Your task to perform on an android device: open app "Chime – Mobile Banking" (install if not already installed) and enter user name: "bullfrog@inbox.com" and password: "breaker" Image 0: 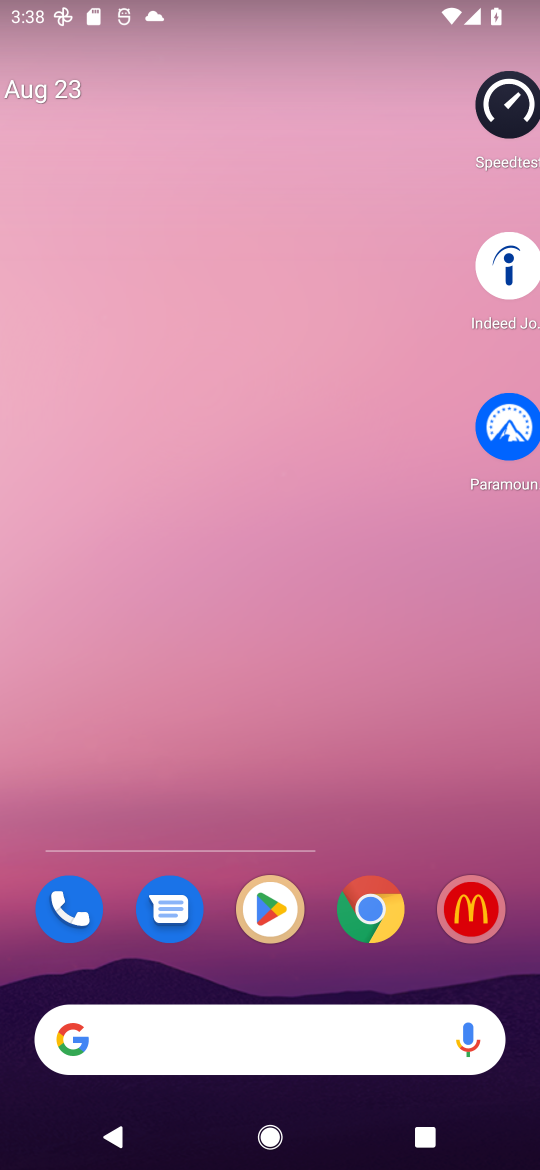
Step 0: press home button
Your task to perform on an android device: open app "Chime – Mobile Banking" (install if not already installed) and enter user name: "bullfrog@inbox.com" and password: "breaker" Image 1: 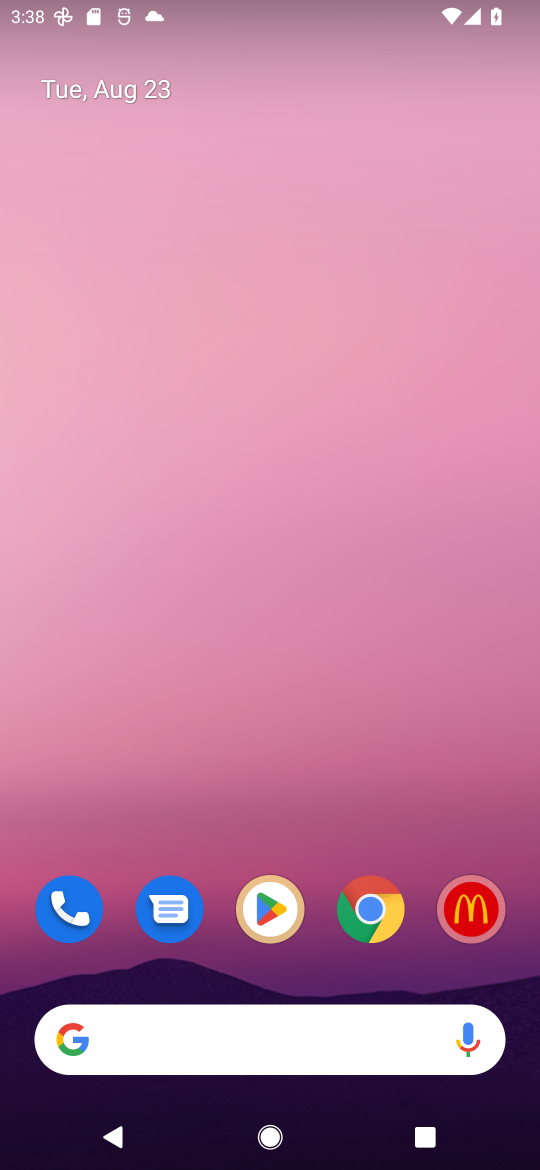
Step 1: click (263, 902)
Your task to perform on an android device: open app "Chime – Mobile Banking" (install if not already installed) and enter user name: "bullfrog@inbox.com" and password: "breaker" Image 2: 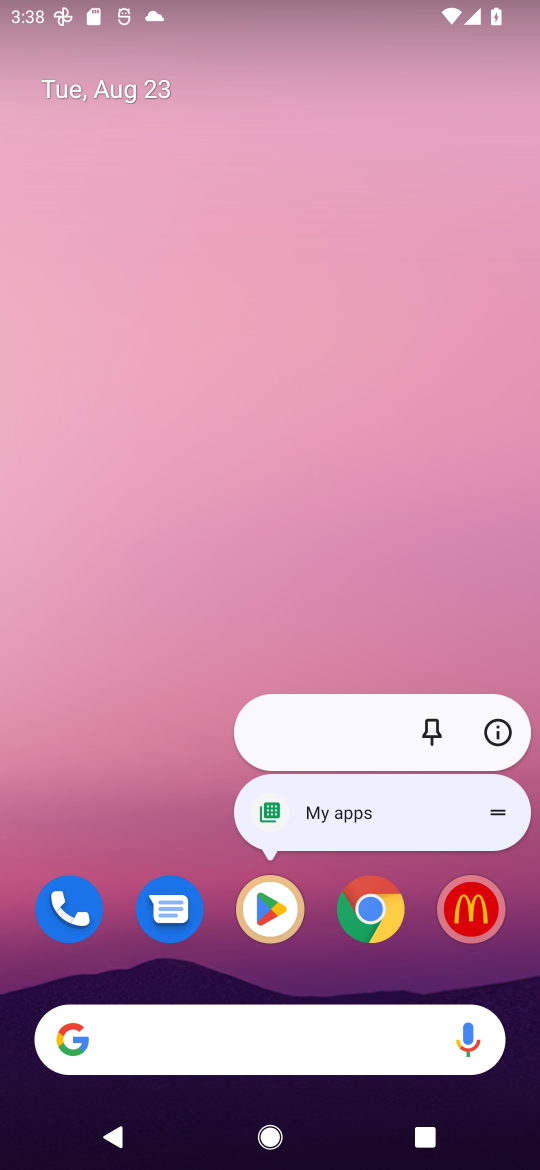
Step 2: click (263, 902)
Your task to perform on an android device: open app "Chime – Mobile Banking" (install if not already installed) and enter user name: "bullfrog@inbox.com" and password: "breaker" Image 3: 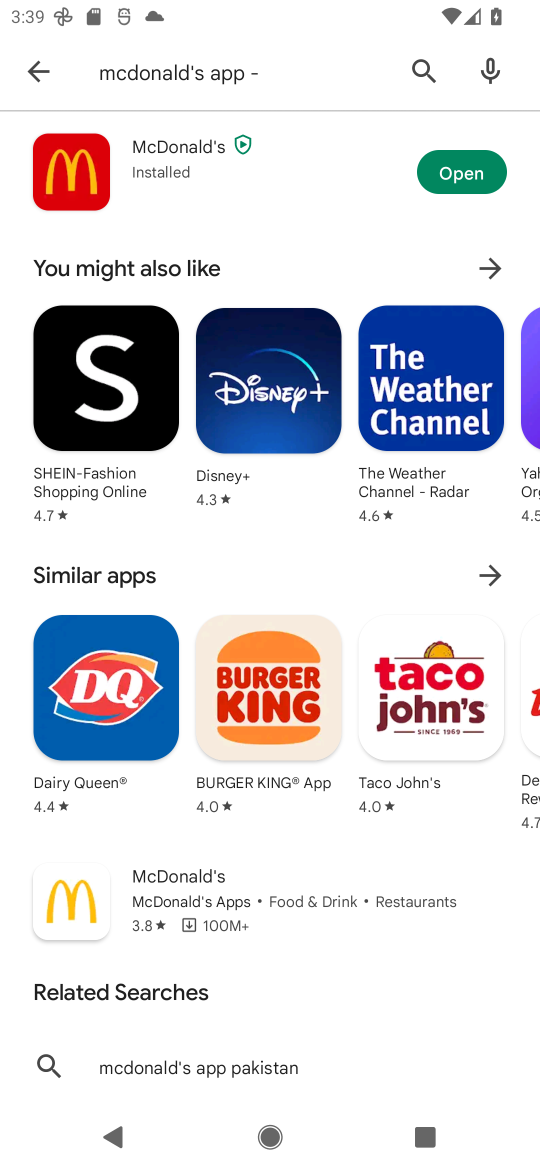
Step 3: click (422, 72)
Your task to perform on an android device: open app "Chime – Mobile Banking" (install if not already installed) and enter user name: "bullfrog@inbox.com" and password: "breaker" Image 4: 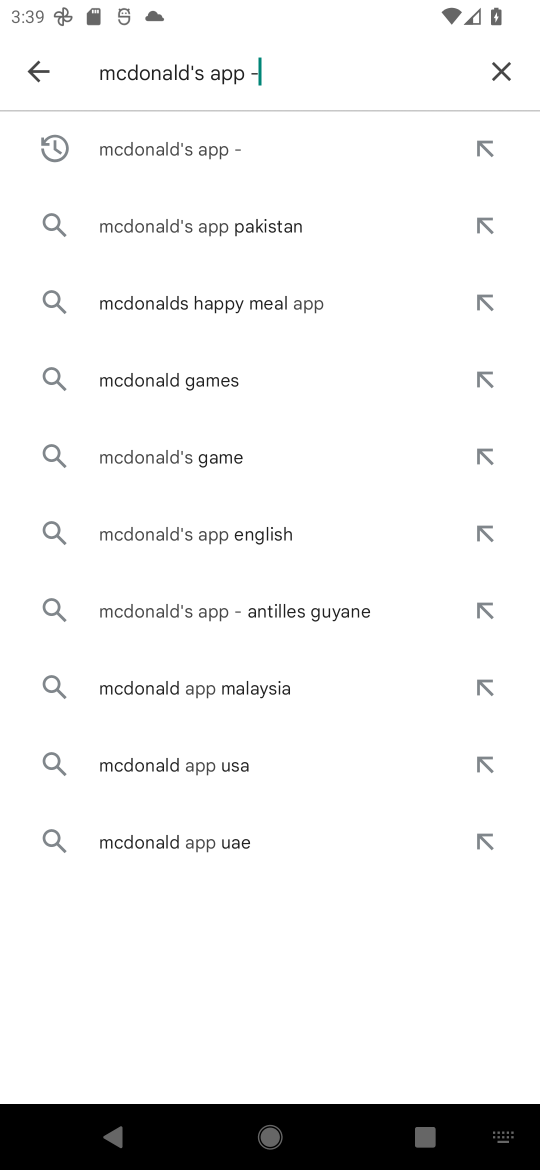
Step 4: click (488, 65)
Your task to perform on an android device: open app "Chime – Mobile Banking" (install if not already installed) and enter user name: "bullfrog@inbox.com" and password: "breaker" Image 5: 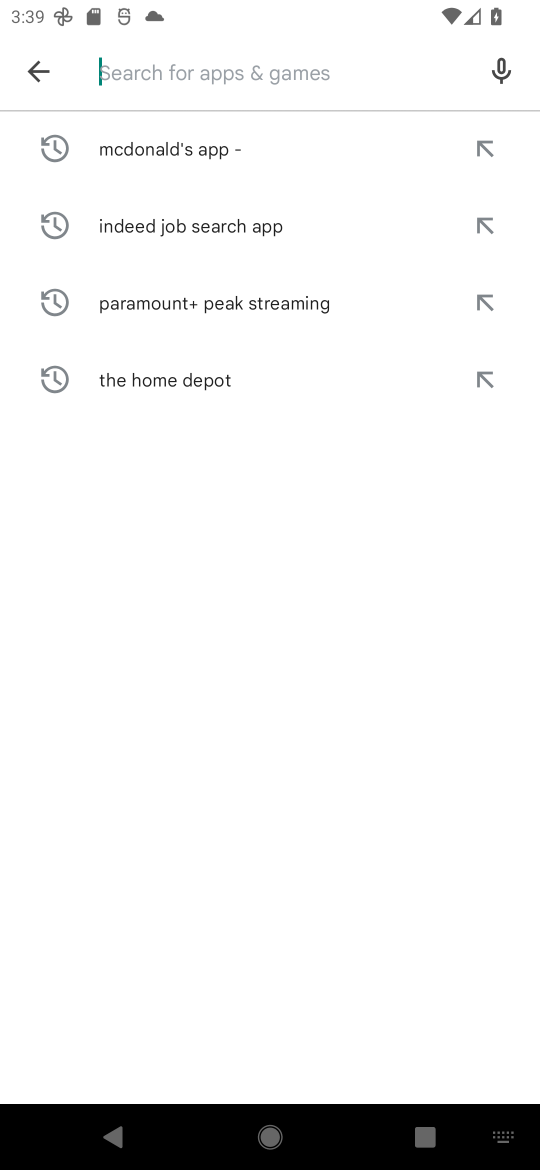
Step 5: type "Chime – Mobile Banking"
Your task to perform on an android device: open app "Chime – Mobile Banking" (install if not already installed) and enter user name: "bullfrog@inbox.com" and password: "breaker" Image 6: 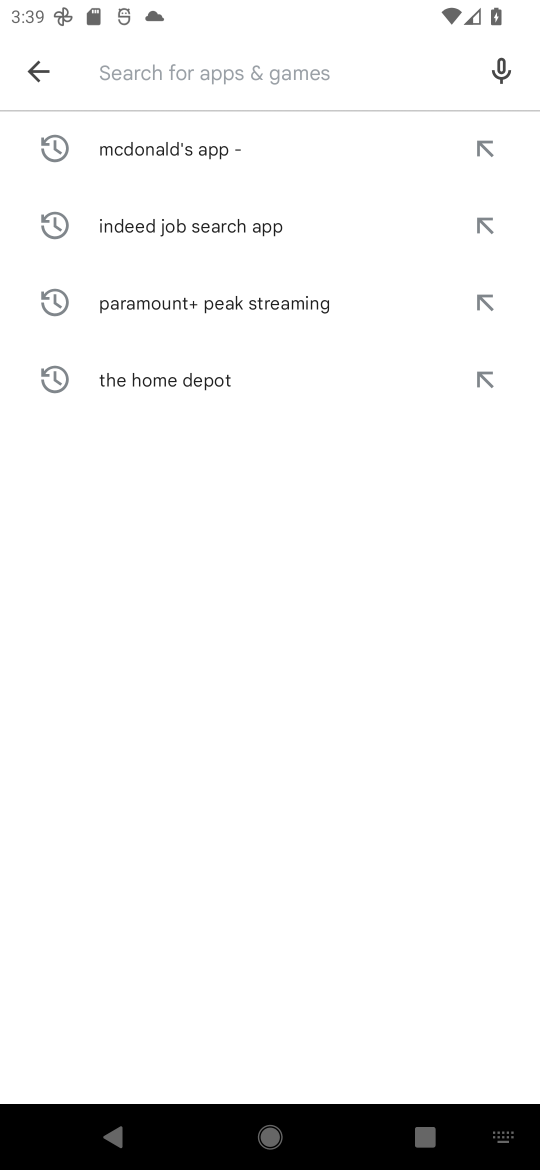
Step 6: type ""
Your task to perform on an android device: open app "Chime – Mobile Banking" (install if not already installed) and enter user name: "bullfrog@inbox.com" and password: "breaker" Image 7: 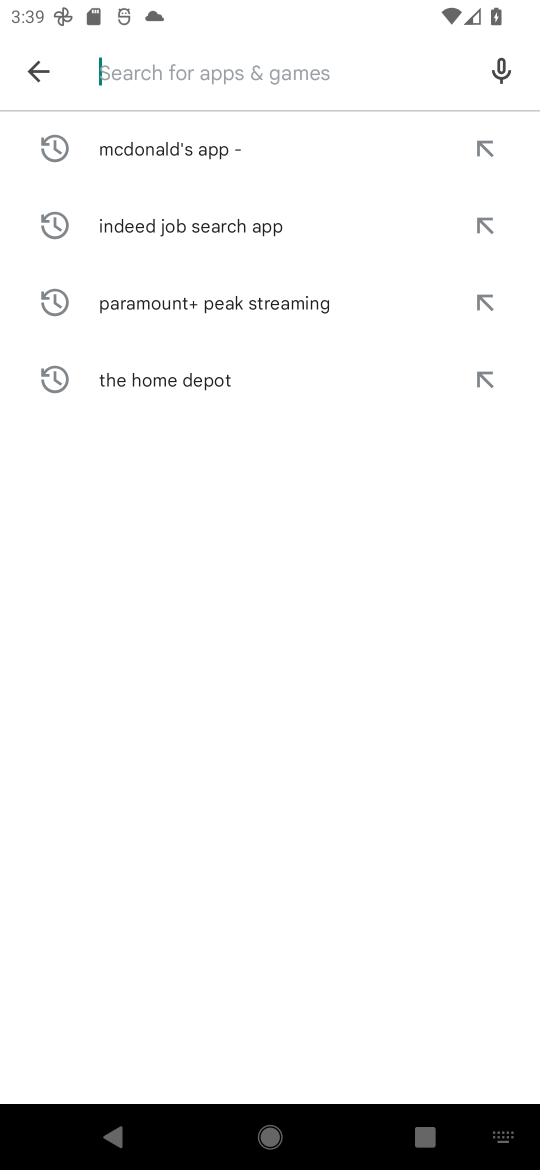
Step 7: type "Chime – Mobile Banking"
Your task to perform on an android device: open app "Chime – Mobile Banking" (install if not already installed) and enter user name: "bullfrog@inbox.com" and password: "breaker" Image 8: 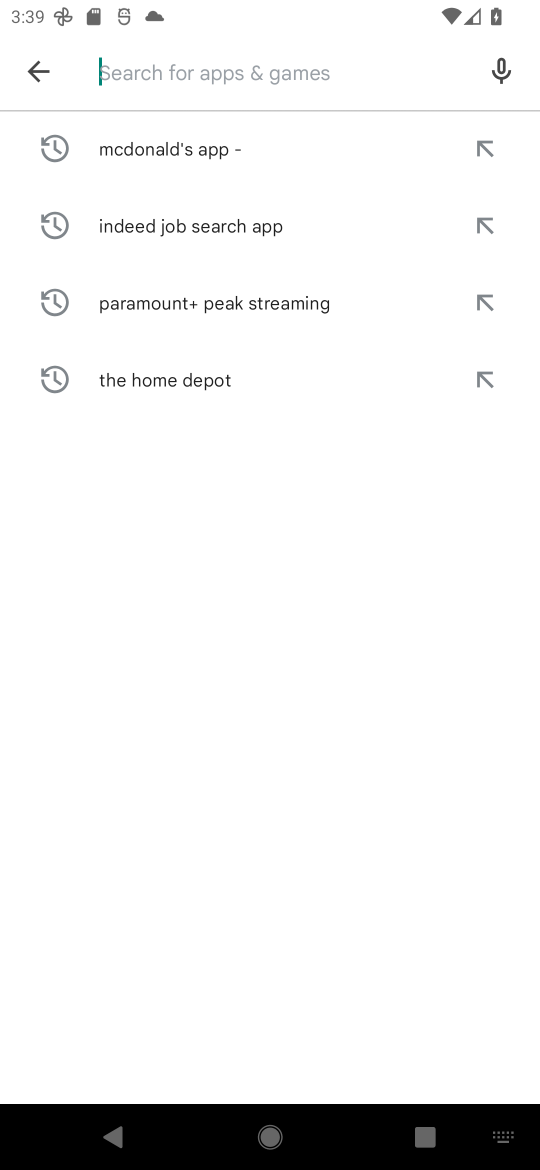
Step 8: type ""
Your task to perform on an android device: open app "Chime – Mobile Banking" (install if not already installed) and enter user name: "bullfrog@inbox.com" and password: "breaker" Image 9: 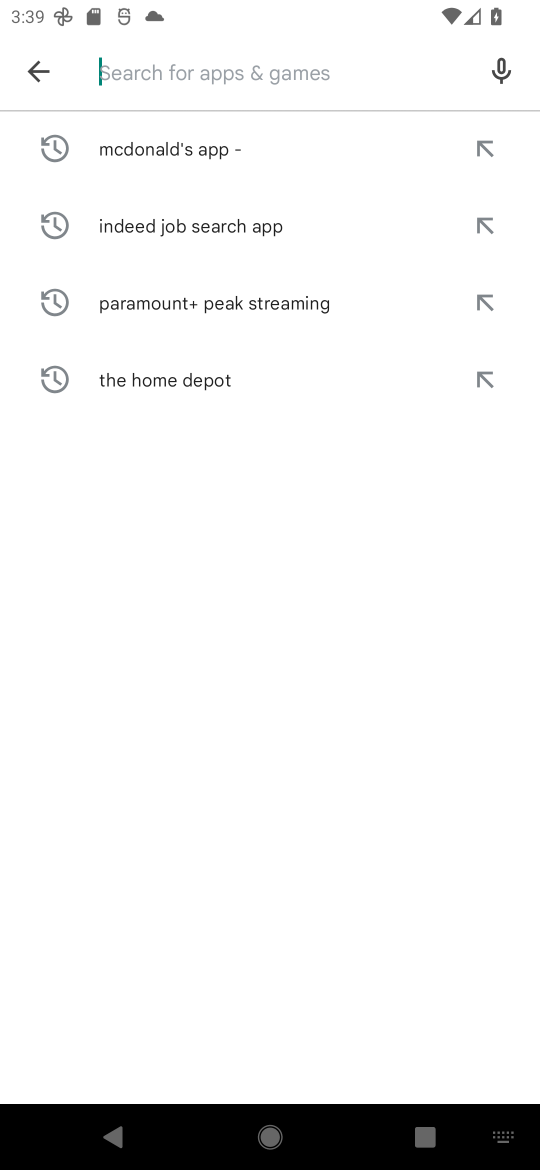
Step 9: press back button
Your task to perform on an android device: open app "Chime – Mobile Banking" (install if not already installed) and enter user name: "bullfrog@inbox.com" and password: "breaker" Image 10: 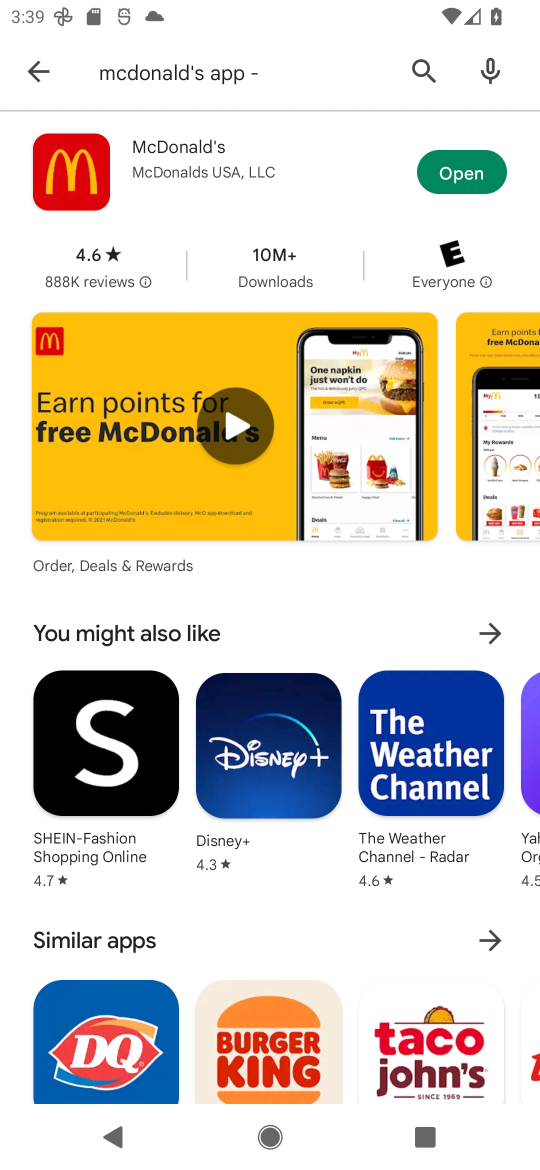
Step 10: click (420, 62)
Your task to perform on an android device: open app "Chime – Mobile Banking" (install if not already installed) and enter user name: "bullfrog@inbox.com" and password: "breaker" Image 11: 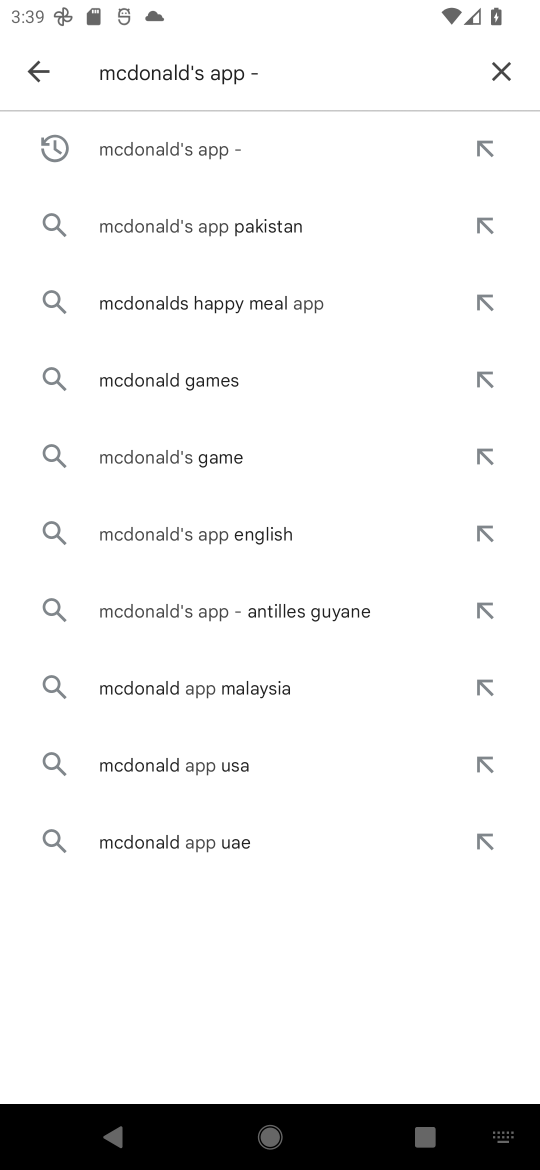
Step 11: click (499, 76)
Your task to perform on an android device: open app "Chime – Mobile Banking" (install if not already installed) and enter user name: "bullfrog@inbox.com" and password: "breaker" Image 12: 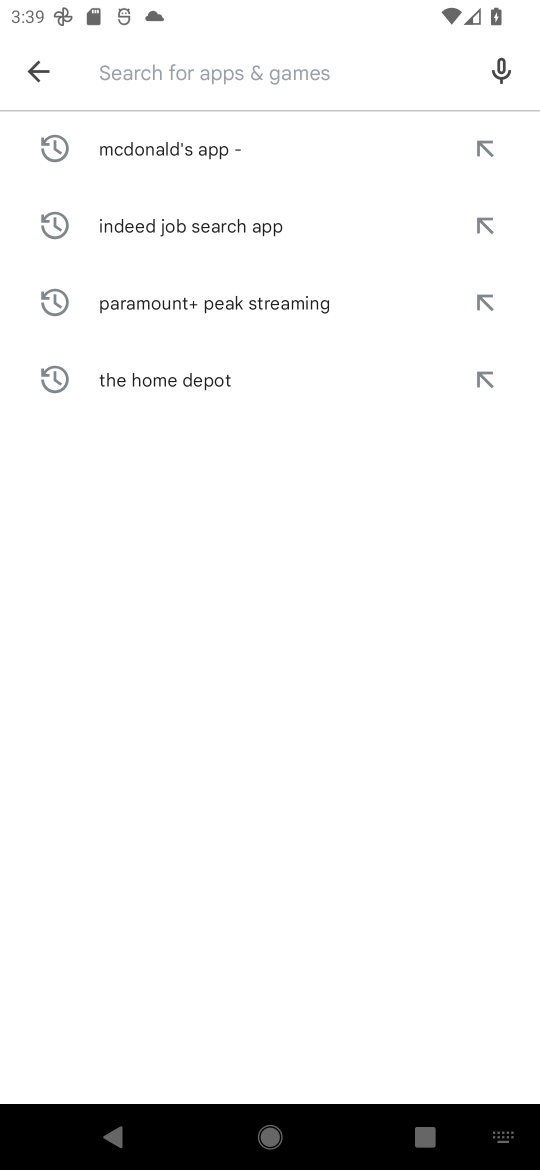
Step 12: type "Chime – Mobile Banking"
Your task to perform on an android device: open app "Chime – Mobile Banking" (install if not already installed) and enter user name: "bullfrog@inbox.com" and password: "breaker" Image 13: 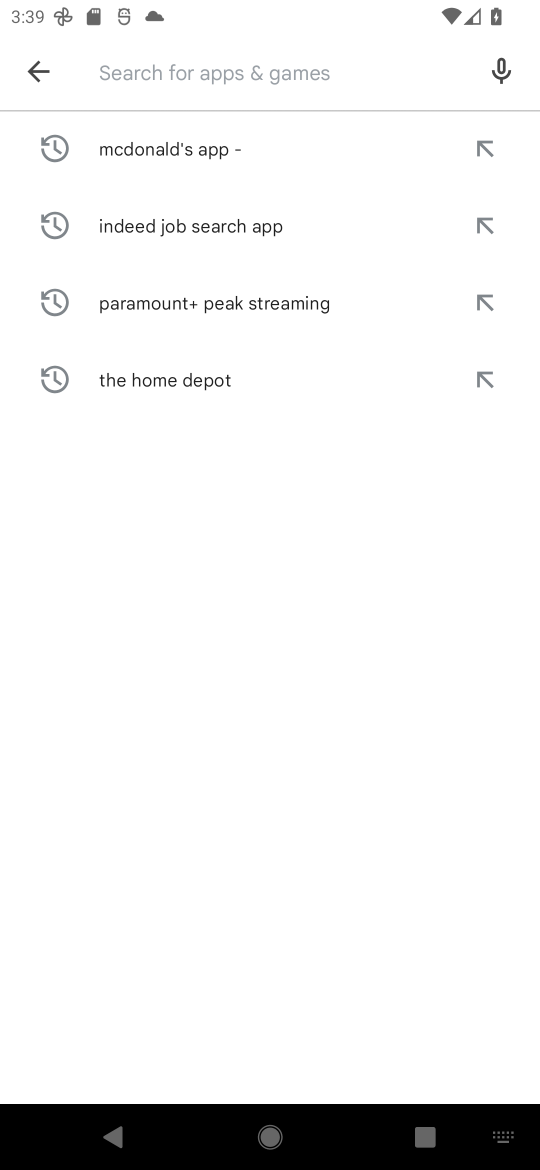
Step 13: type ""
Your task to perform on an android device: open app "Chime – Mobile Banking" (install if not already installed) and enter user name: "bullfrog@inbox.com" and password: "breaker" Image 14: 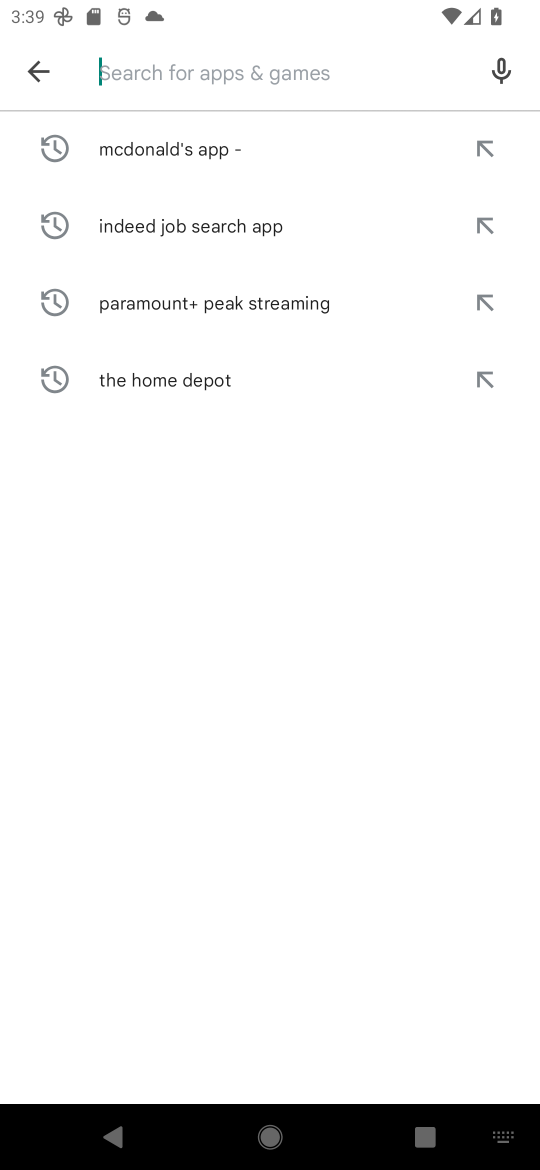
Step 14: type "gbgh"
Your task to perform on an android device: open app "Chime – Mobile Banking" (install if not already installed) and enter user name: "bullfrog@inbox.com" and password: "breaker" Image 15: 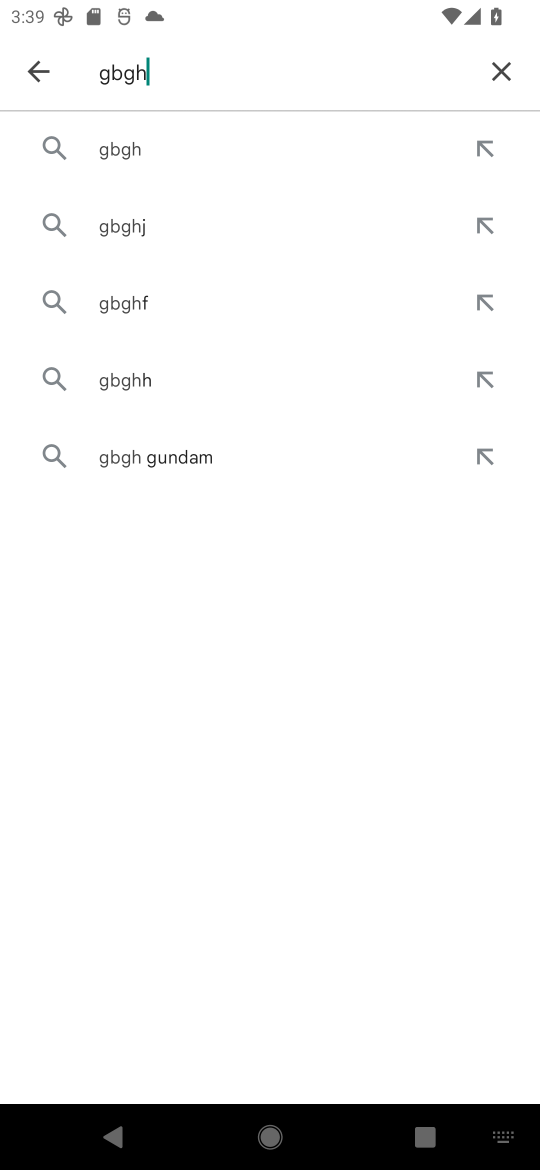
Step 15: click (492, 70)
Your task to perform on an android device: open app "Chime – Mobile Banking" (install if not already installed) and enter user name: "bullfrog@inbox.com" and password: "breaker" Image 16: 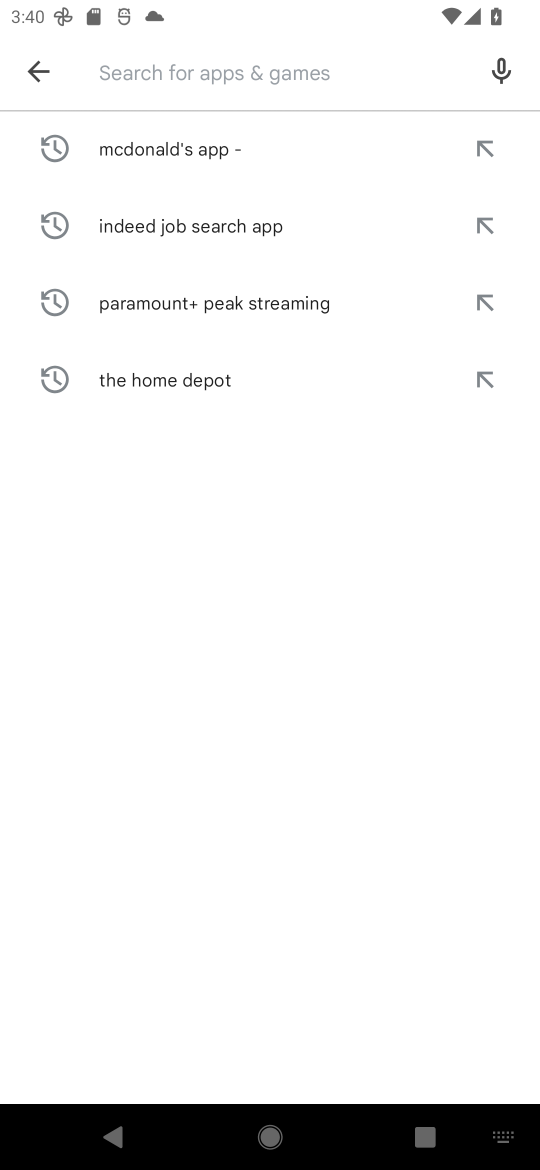
Step 16: type "chime - mobile banking"
Your task to perform on an android device: open app "Chime – Mobile Banking" (install if not already installed) and enter user name: "bullfrog@inbox.com" and password: "breaker" Image 17: 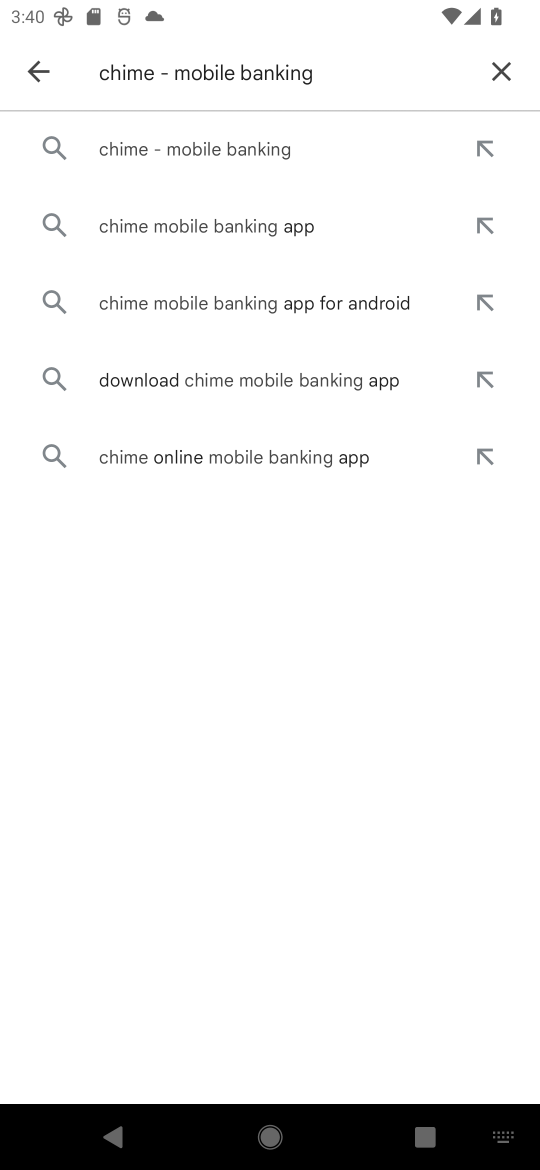
Step 17: click (263, 149)
Your task to perform on an android device: open app "Chime – Mobile Banking" (install if not already installed) and enter user name: "bullfrog@inbox.com" and password: "breaker" Image 18: 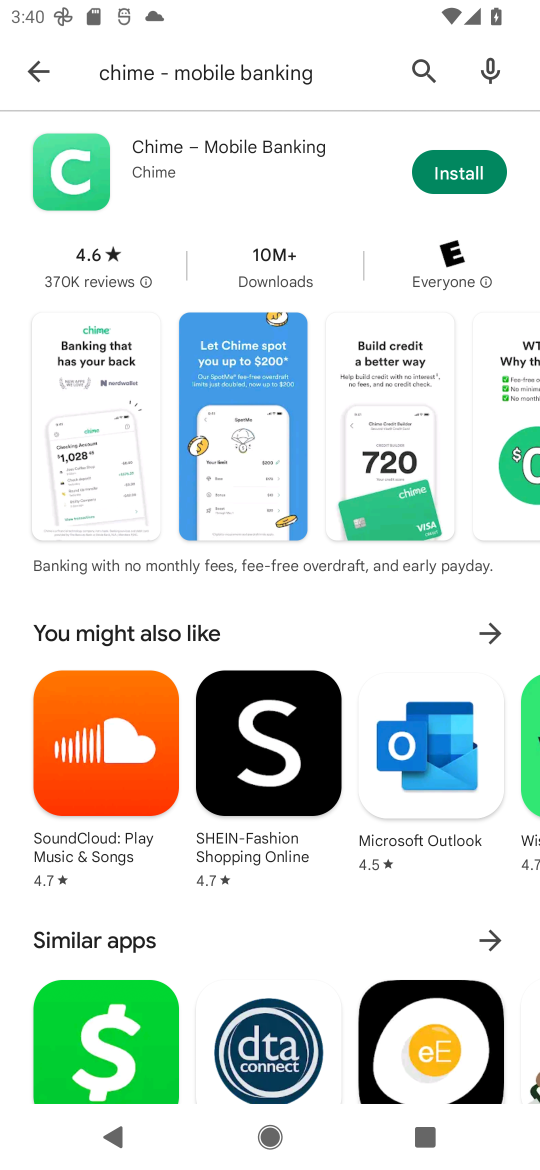
Step 18: click (450, 174)
Your task to perform on an android device: open app "Chime – Mobile Banking" (install if not already installed) and enter user name: "bullfrog@inbox.com" and password: "breaker" Image 19: 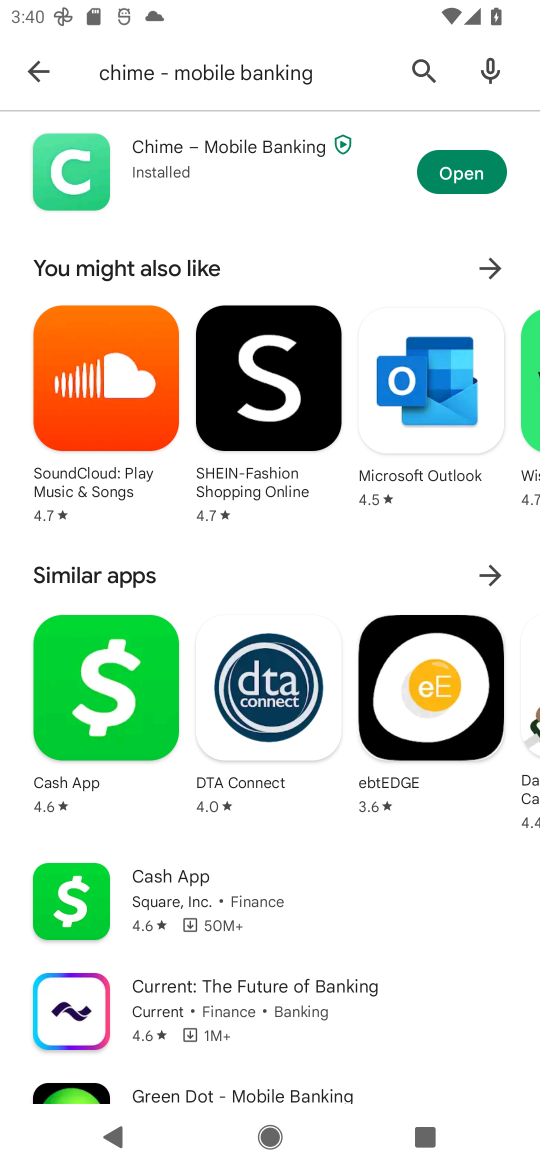
Step 19: click (474, 179)
Your task to perform on an android device: open app "Chime – Mobile Banking" (install if not already installed) and enter user name: "bullfrog@inbox.com" and password: "breaker" Image 20: 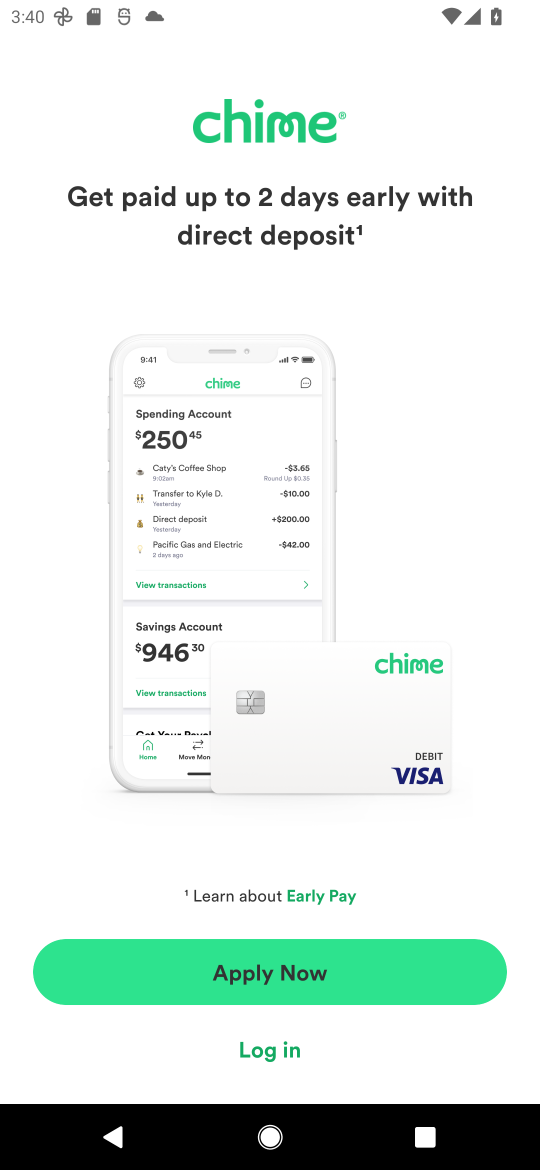
Step 20: click (278, 1053)
Your task to perform on an android device: open app "Chime – Mobile Banking" (install if not already installed) and enter user name: "bullfrog@inbox.com" and password: "breaker" Image 21: 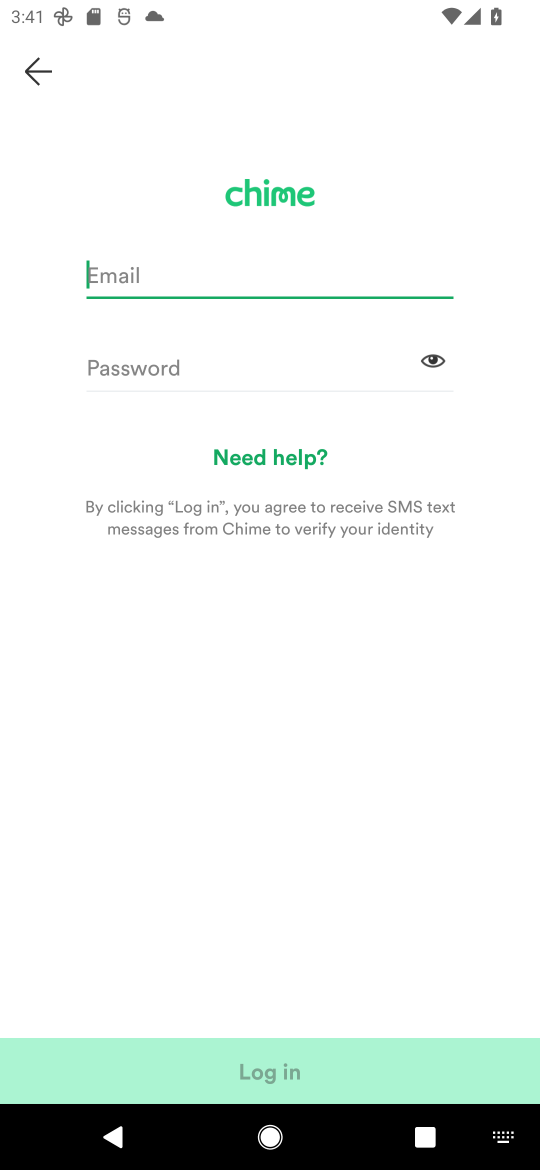
Step 21: type "bullfrog@inbox.com"
Your task to perform on an android device: open app "Chime – Mobile Banking" (install if not already installed) and enter user name: "bullfrog@inbox.com" and password: "breaker" Image 22: 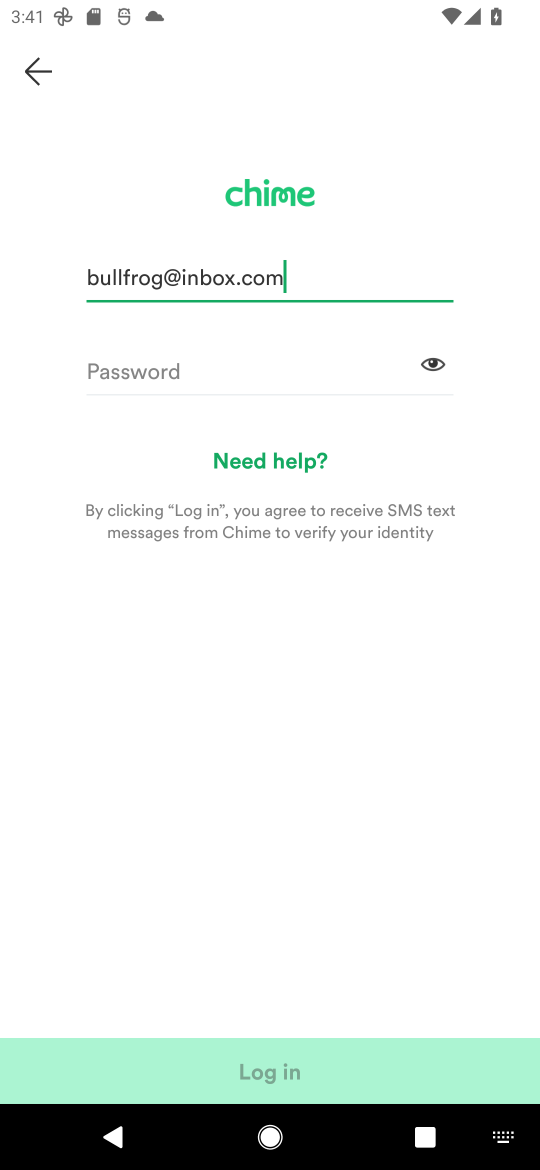
Step 22: click (211, 361)
Your task to perform on an android device: open app "Chime – Mobile Banking" (install if not already installed) and enter user name: "bullfrog@inbox.com" and password: "breaker" Image 23: 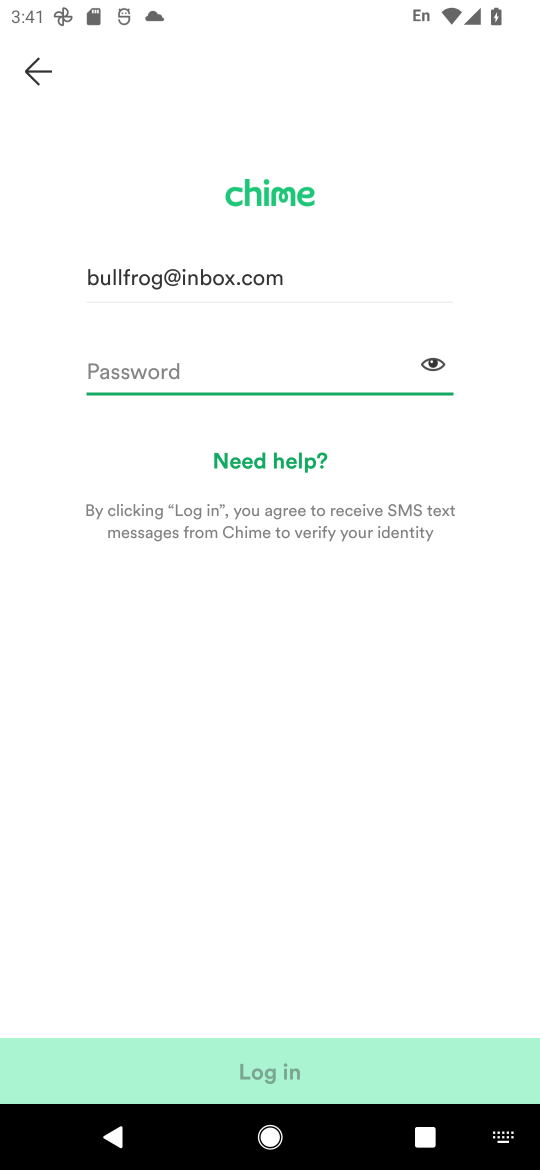
Step 23: type "breaker"
Your task to perform on an android device: open app "Chime – Mobile Banking" (install if not already installed) and enter user name: "bullfrog@inbox.com" and password: "breaker" Image 24: 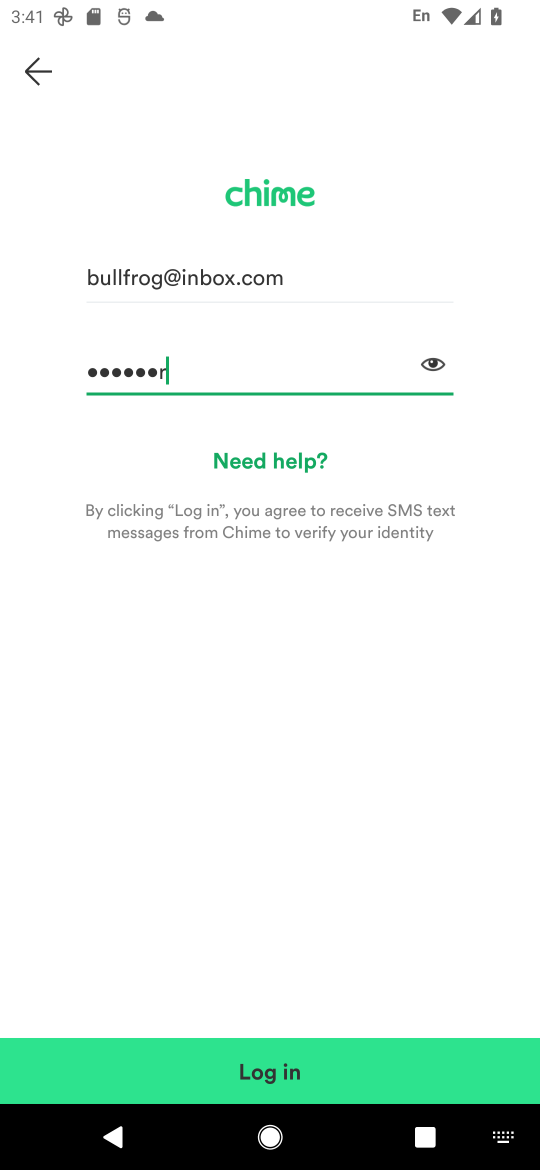
Step 24: type ""
Your task to perform on an android device: open app "Chime – Mobile Banking" (install if not already installed) and enter user name: "bullfrog@inbox.com" and password: "breaker" Image 25: 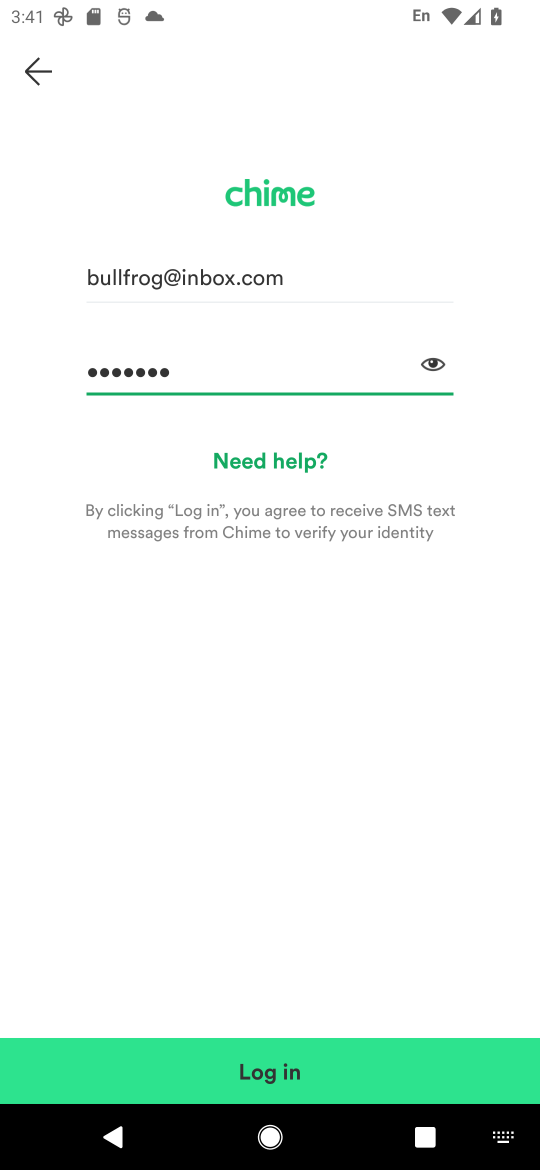
Step 25: click (277, 1069)
Your task to perform on an android device: open app "Chime – Mobile Banking" (install if not already installed) and enter user name: "bullfrog@inbox.com" and password: "breaker" Image 26: 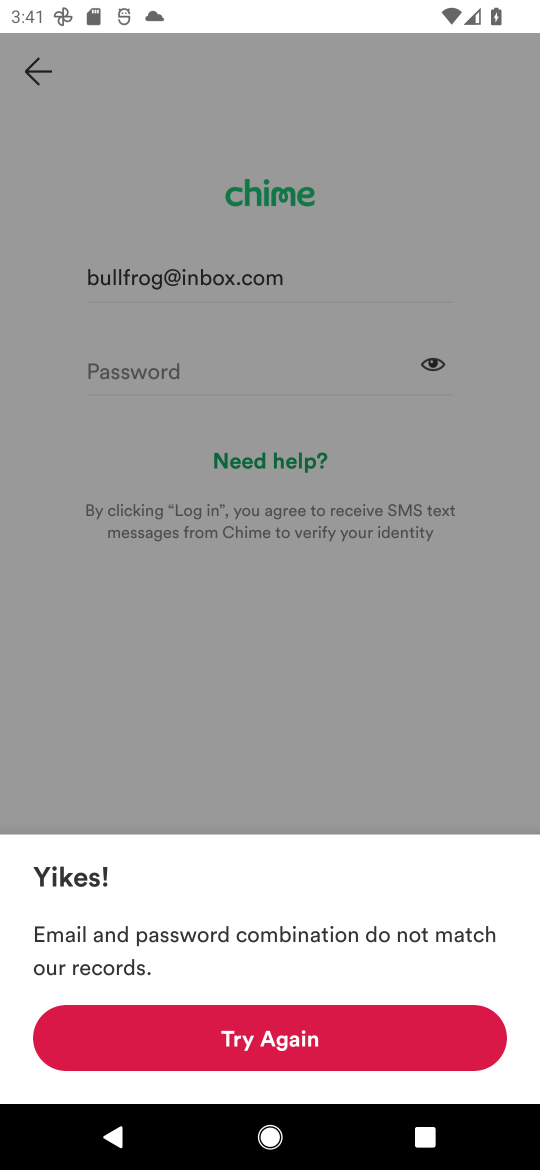
Step 26: click (270, 1039)
Your task to perform on an android device: open app "Chime – Mobile Banking" (install if not already installed) and enter user name: "bullfrog@inbox.com" and password: "breaker" Image 27: 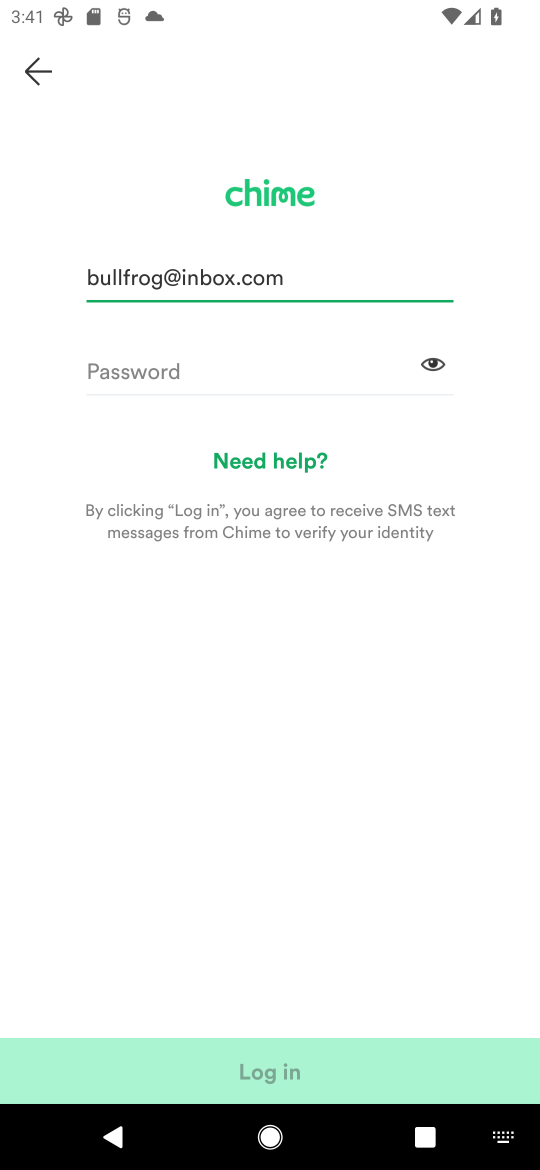
Step 27: task complete